Your task to perform on an android device: set default search engine in the chrome app Image 0: 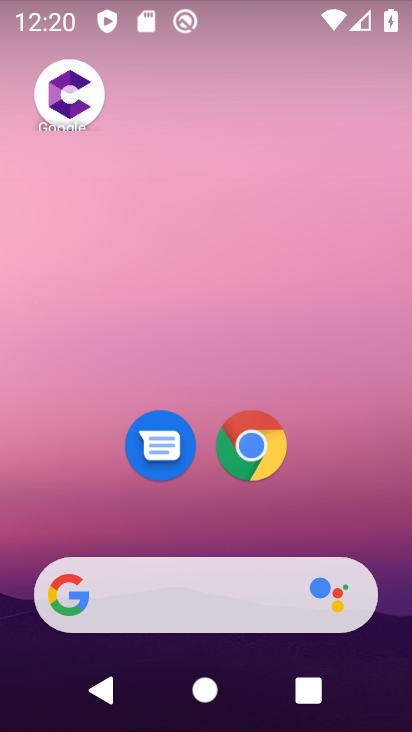
Step 0: drag from (377, 554) to (306, 41)
Your task to perform on an android device: set default search engine in the chrome app Image 1: 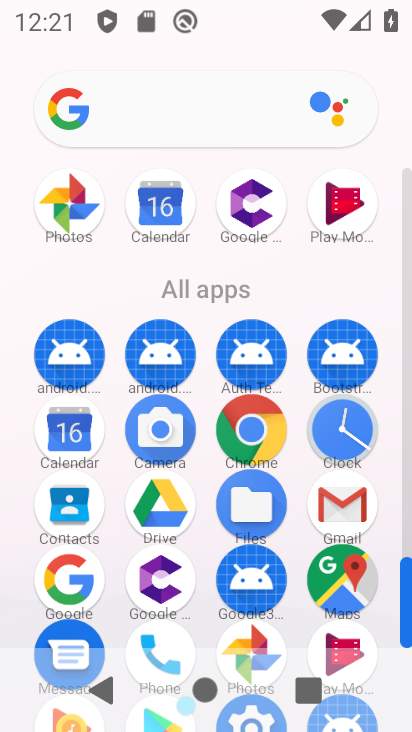
Step 1: click (226, 435)
Your task to perform on an android device: set default search engine in the chrome app Image 2: 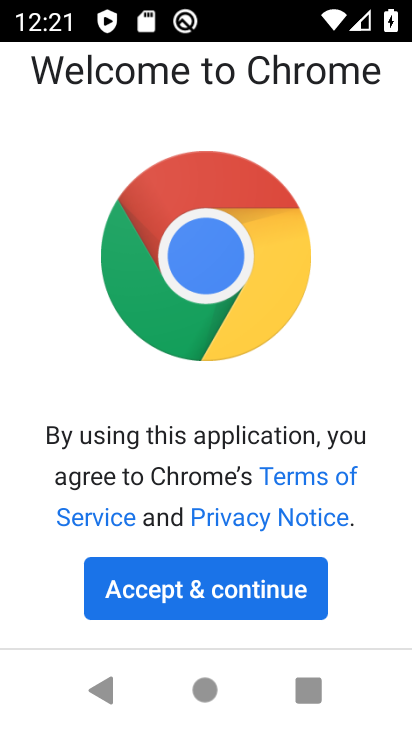
Step 2: click (178, 592)
Your task to perform on an android device: set default search engine in the chrome app Image 3: 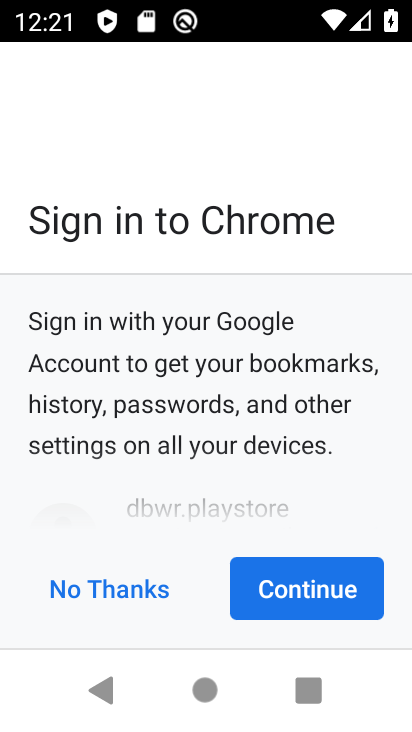
Step 3: click (178, 592)
Your task to perform on an android device: set default search engine in the chrome app Image 4: 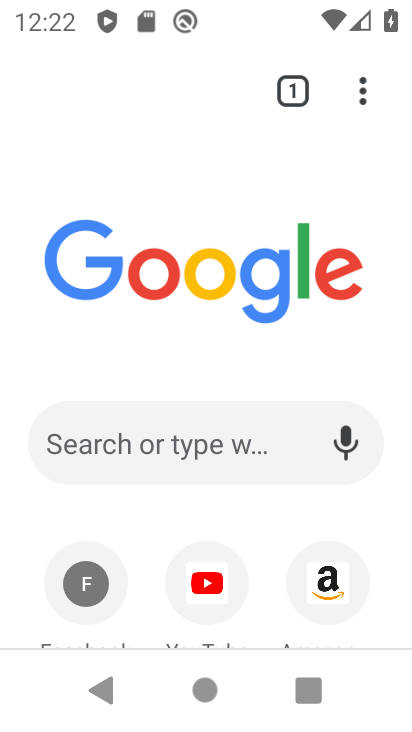
Step 4: click (358, 99)
Your task to perform on an android device: set default search engine in the chrome app Image 5: 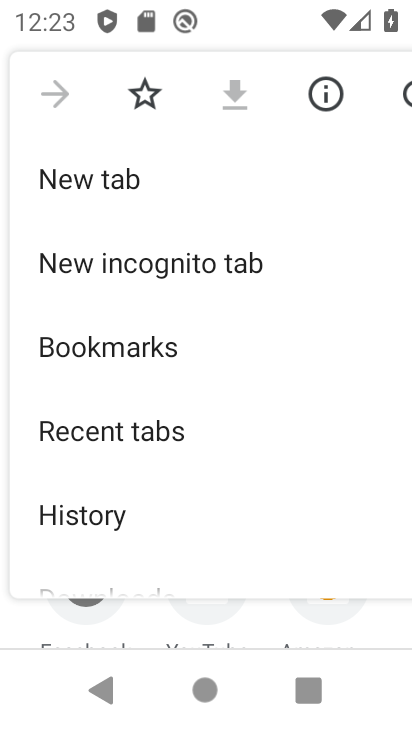
Step 5: drag from (176, 409) to (179, 90)
Your task to perform on an android device: set default search engine in the chrome app Image 6: 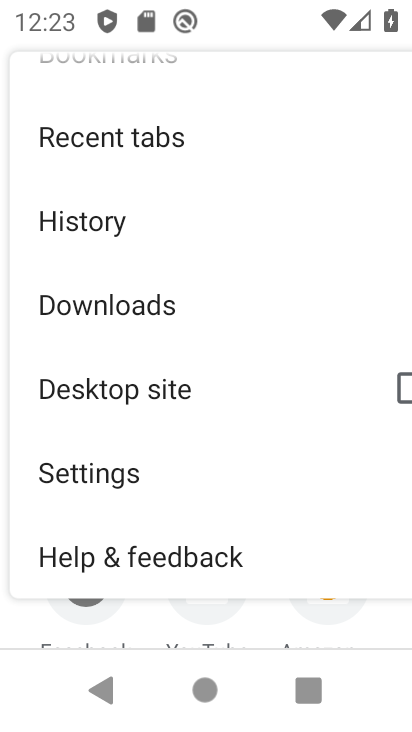
Step 6: click (140, 473)
Your task to perform on an android device: set default search engine in the chrome app Image 7: 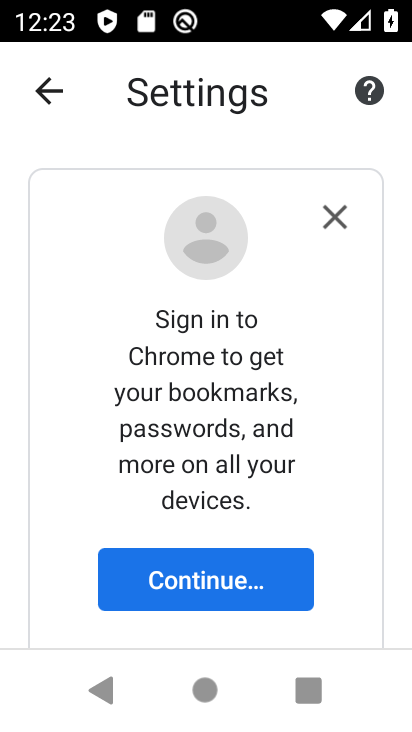
Step 7: click (241, 566)
Your task to perform on an android device: set default search engine in the chrome app Image 8: 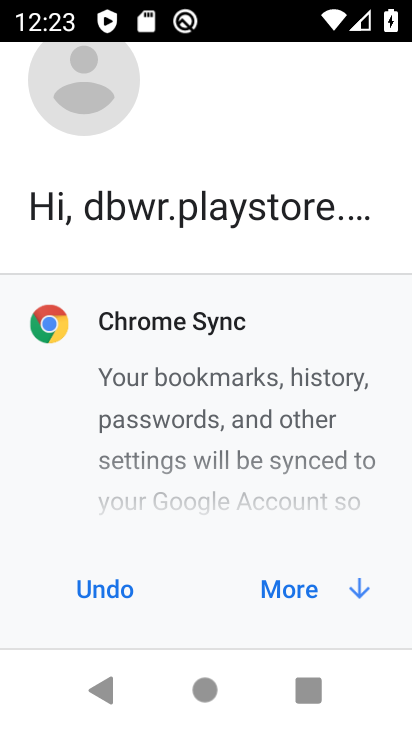
Step 8: click (270, 580)
Your task to perform on an android device: set default search engine in the chrome app Image 9: 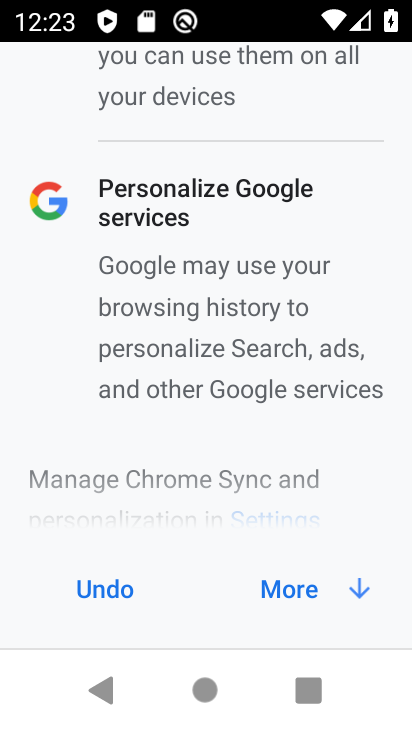
Step 9: click (282, 581)
Your task to perform on an android device: set default search engine in the chrome app Image 10: 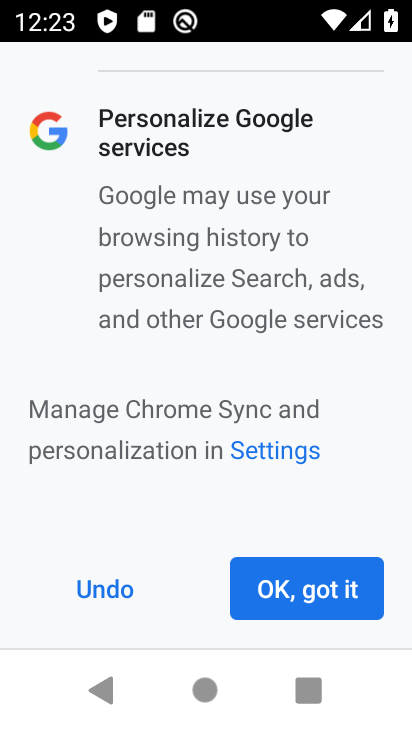
Step 10: click (282, 581)
Your task to perform on an android device: set default search engine in the chrome app Image 11: 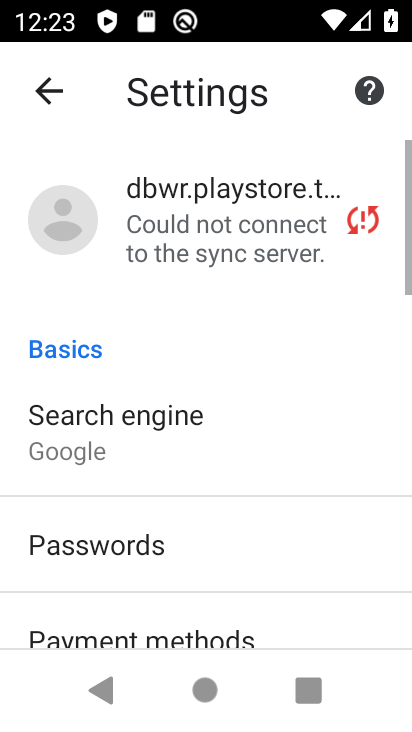
Step 11: click (101, 450)
Your task to perform on an android device: set default search engine in the chrome app Image 12: 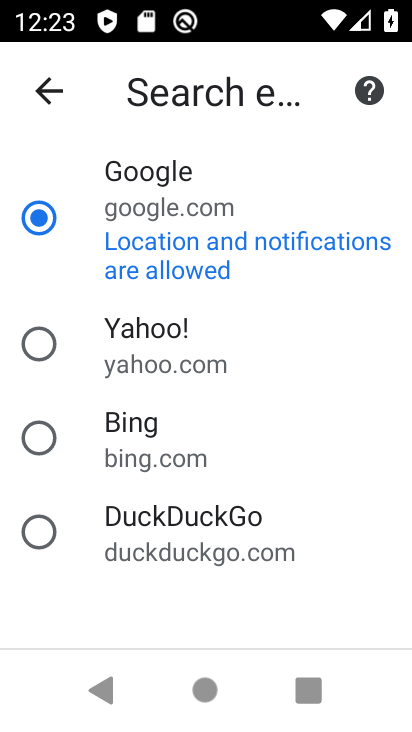
Step 12: click (117, 365)
Your task to perform on an android device: set default search engine in the chrome app Image 13: 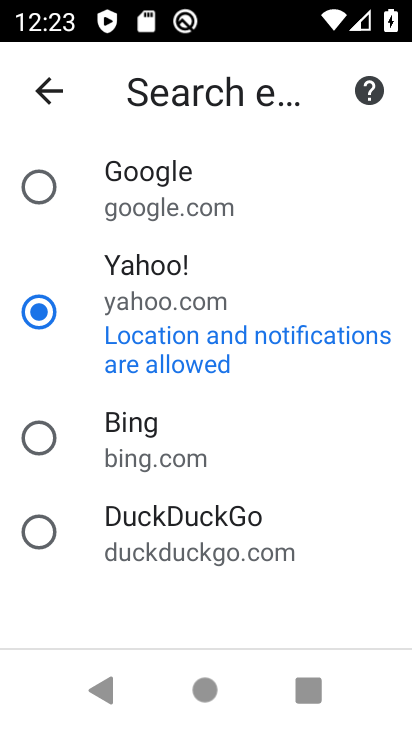
Step 13: task complete